Your task to perform on an android device: Search for the best rated headphones on Walmart Image 0: 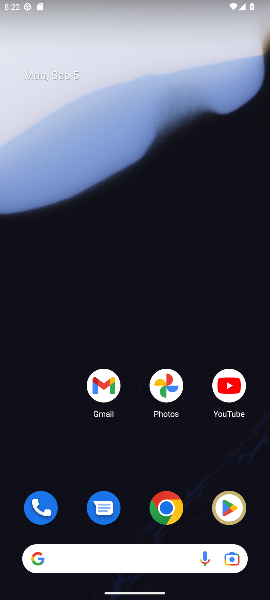
Step 0: click (167, 506)
Your task to perform on an android device: Search for the best rated headphones on Walmart Image 1: 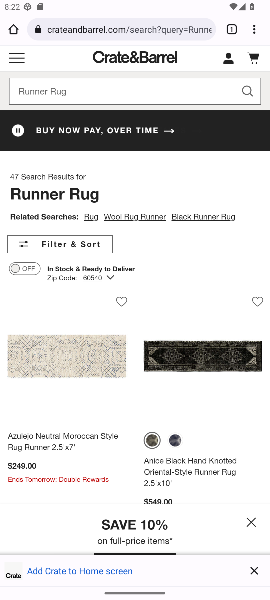
Step 1: click (111, 33)
Your task to perform on an android device: Search for the best rated headphones on Walmart Image 2: 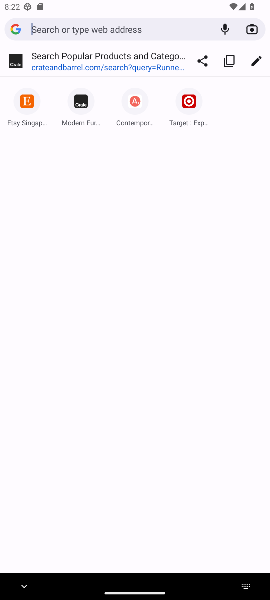
Step 2: type "Walmart"
Your task to perform on an android device: Search for the best rated headphones on Walmart Image 3: 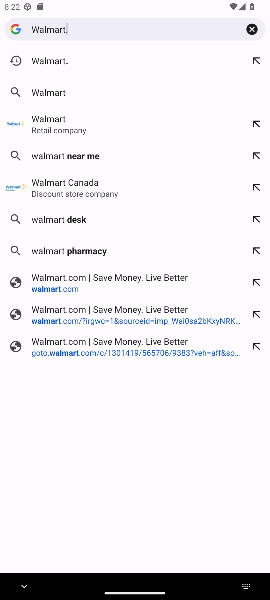
Step 3: click (45, 98)
Your task to perform on an android device: Search for the best rated headphones on Walmart Image 4: 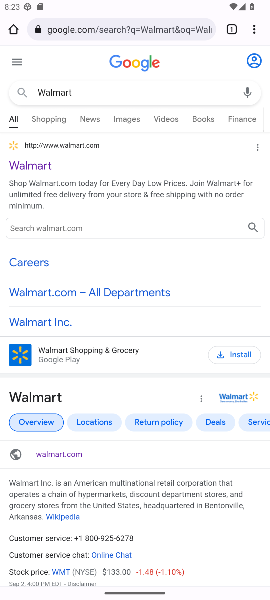
Step 4: click (17, 165)
Your task to perform on an android device: Search for the best rated headphones on Walmart Image 5: 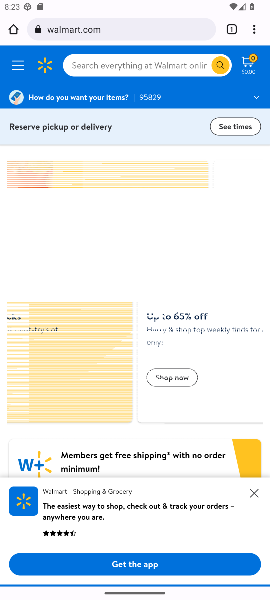
Step 5: click (117, 66)
Your task to perform on an android device: Search for the best rated headphones on Walmart Image 6: 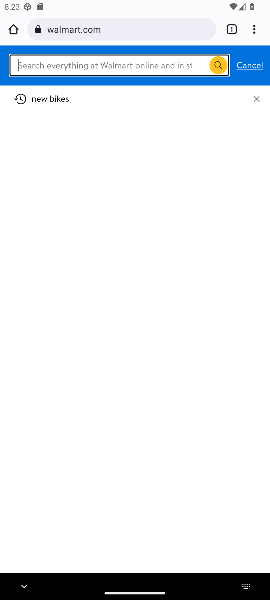
Step 6: type "best rated headphones"
Your task to perform on an android device: Search for the best rated headphones on Walmart Image 7: 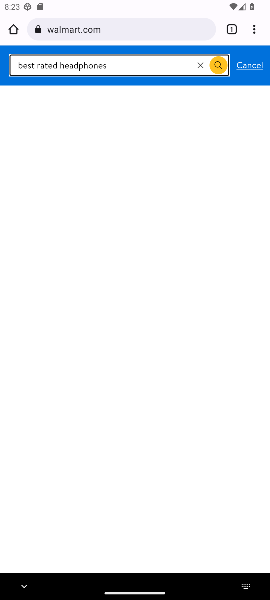
Step 7: click (220, 67)
Your task to perform on an android device: Search for the best rated headphones on Walmart Image 8: 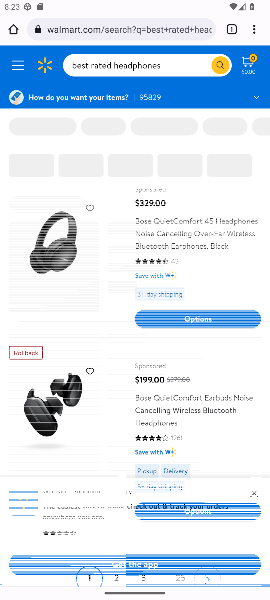
Step 8: task complete